Your task to perform on an android device: How much does a 2 bedroom apartment rent for in Portland? Image 0: 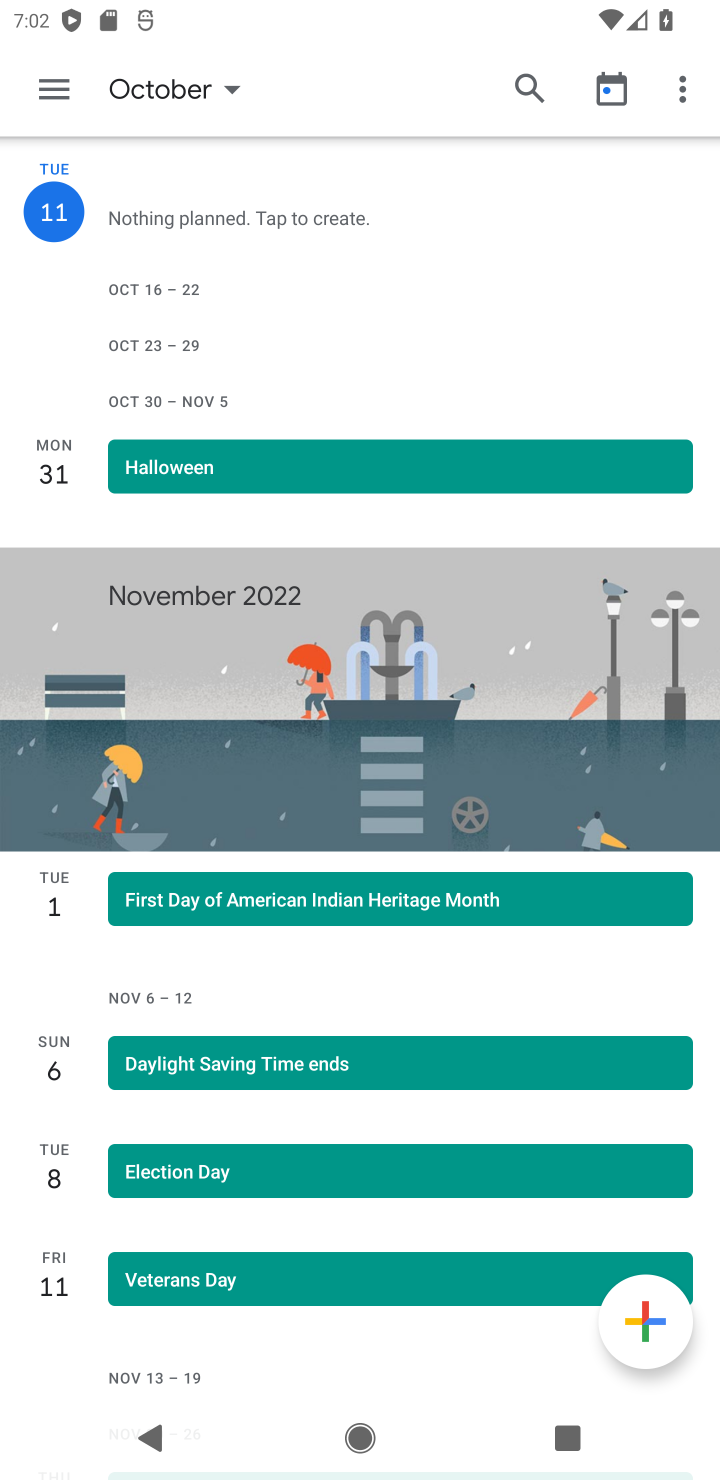
Step 0: press home button
Your task to perform on an android device: How much does a 2 bedroom apartment rent for in Portland? Image 1: 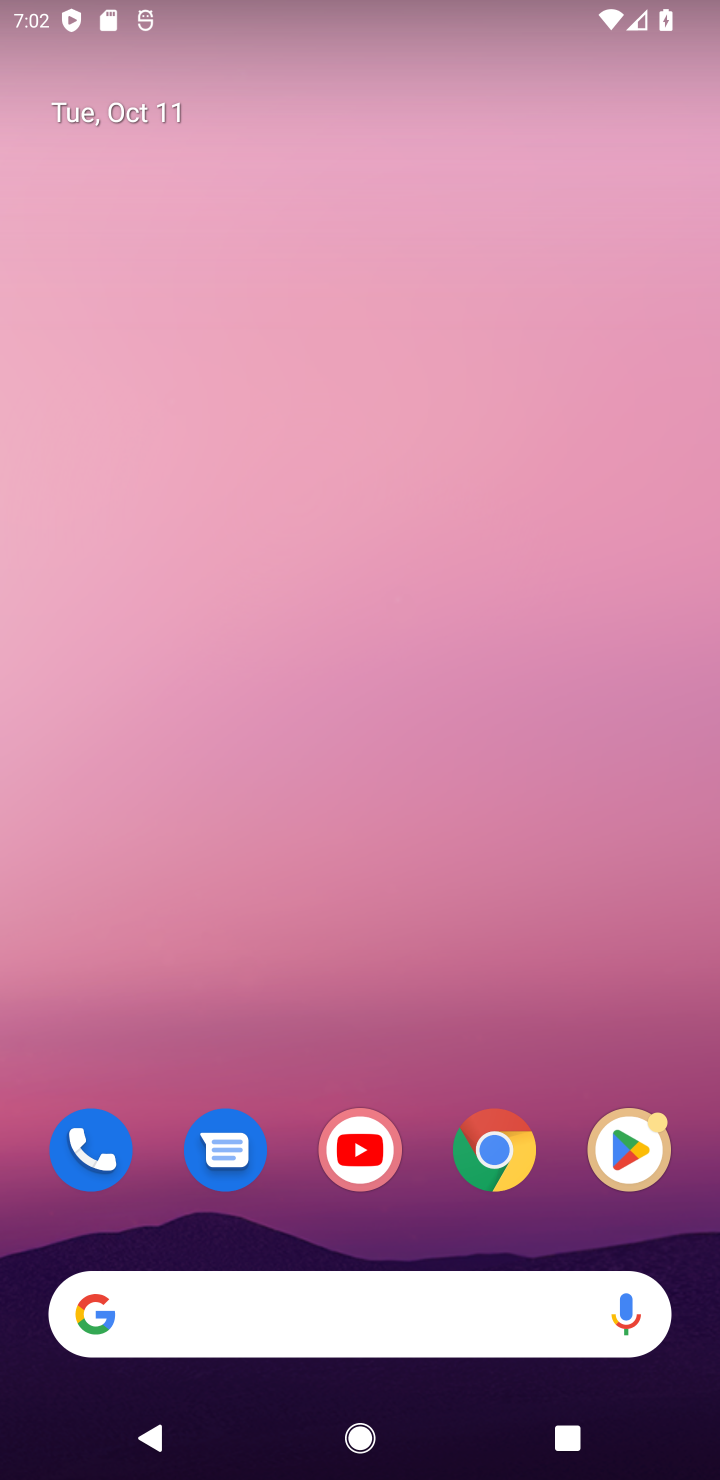
Step 1: click (499, 1160)
Your task to perform on an android device: How much does a 2 bedroom apartment rent for in Portland? Image 2: 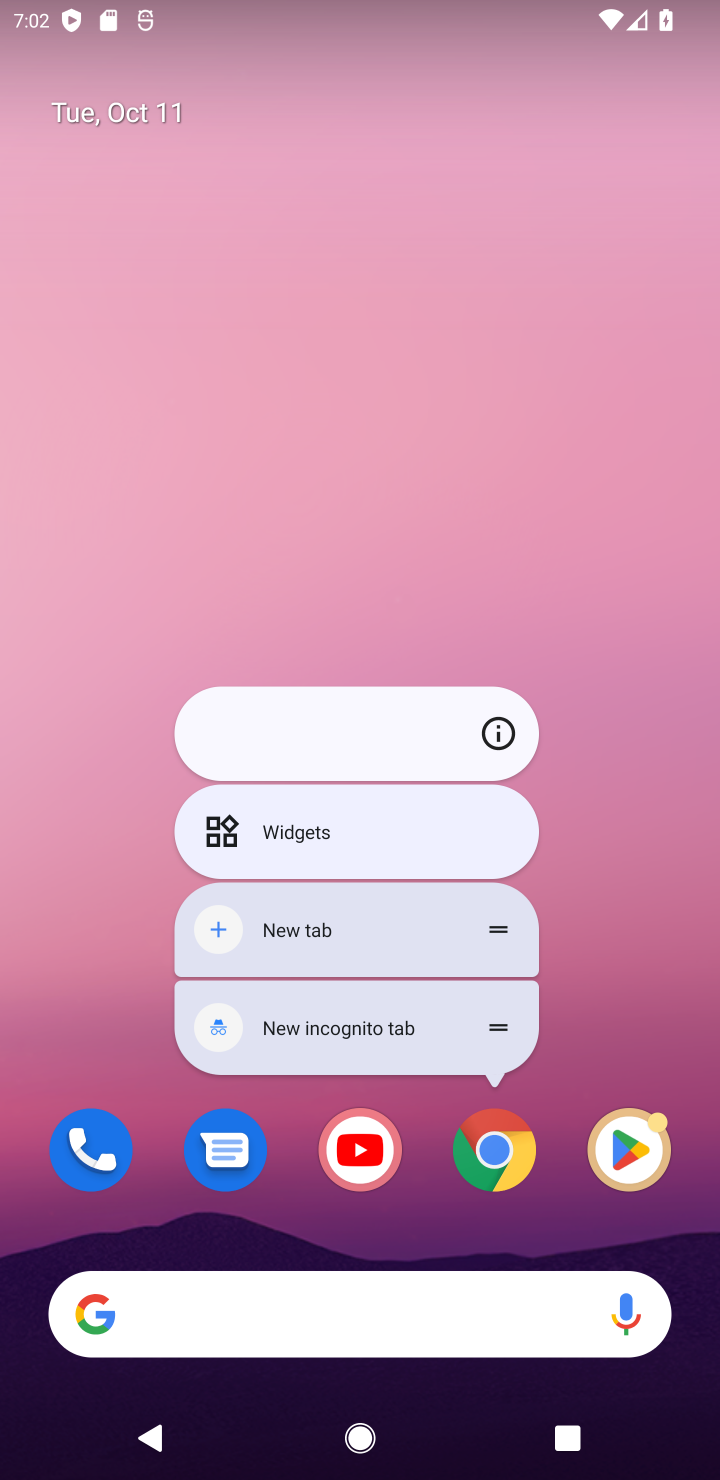
Step 2: click (491, 1155)
Your task to perform on an android device: How much does a 2 bedroom apartment rent for in Portland? Image 3: 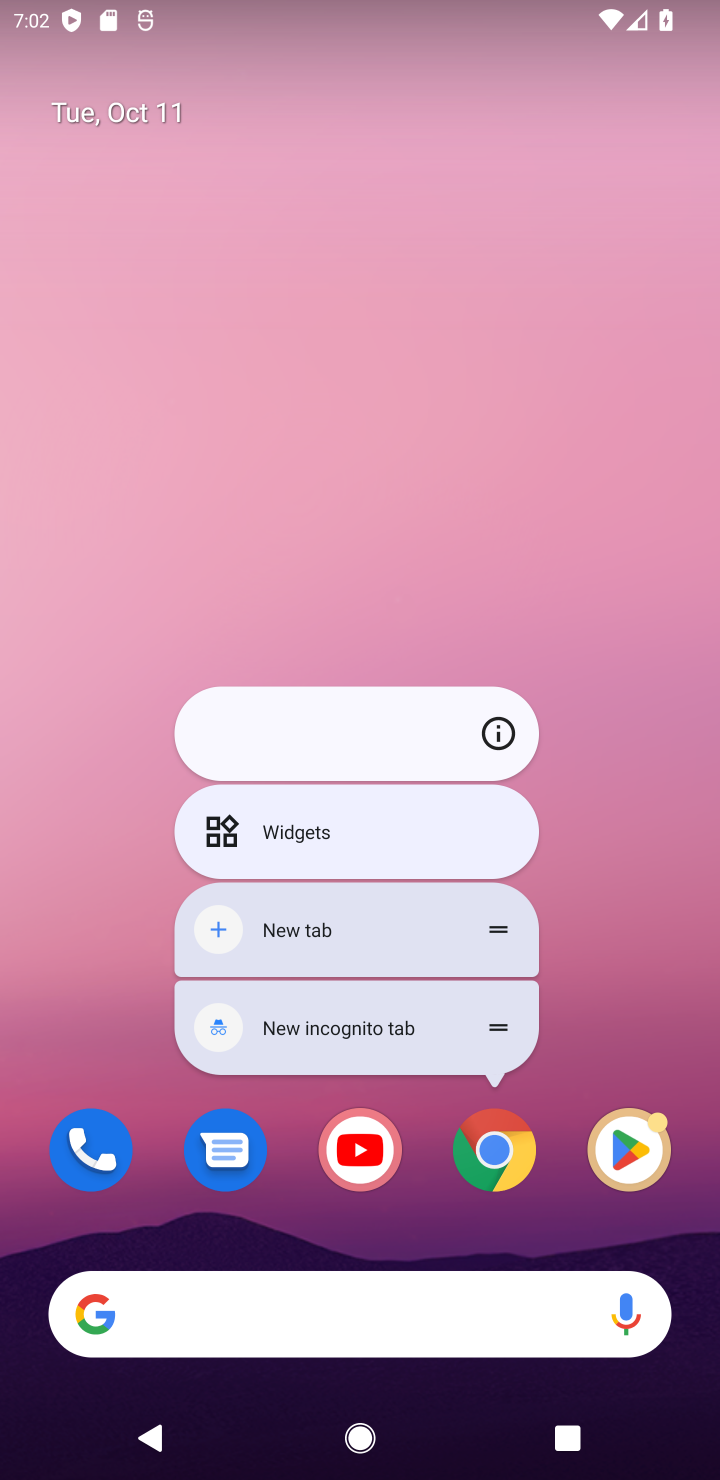
Step 3: click (495, 1151)
Your task to perform on an android device: How much does a 2 bedroom apartment rent for in Portland? Image 4: 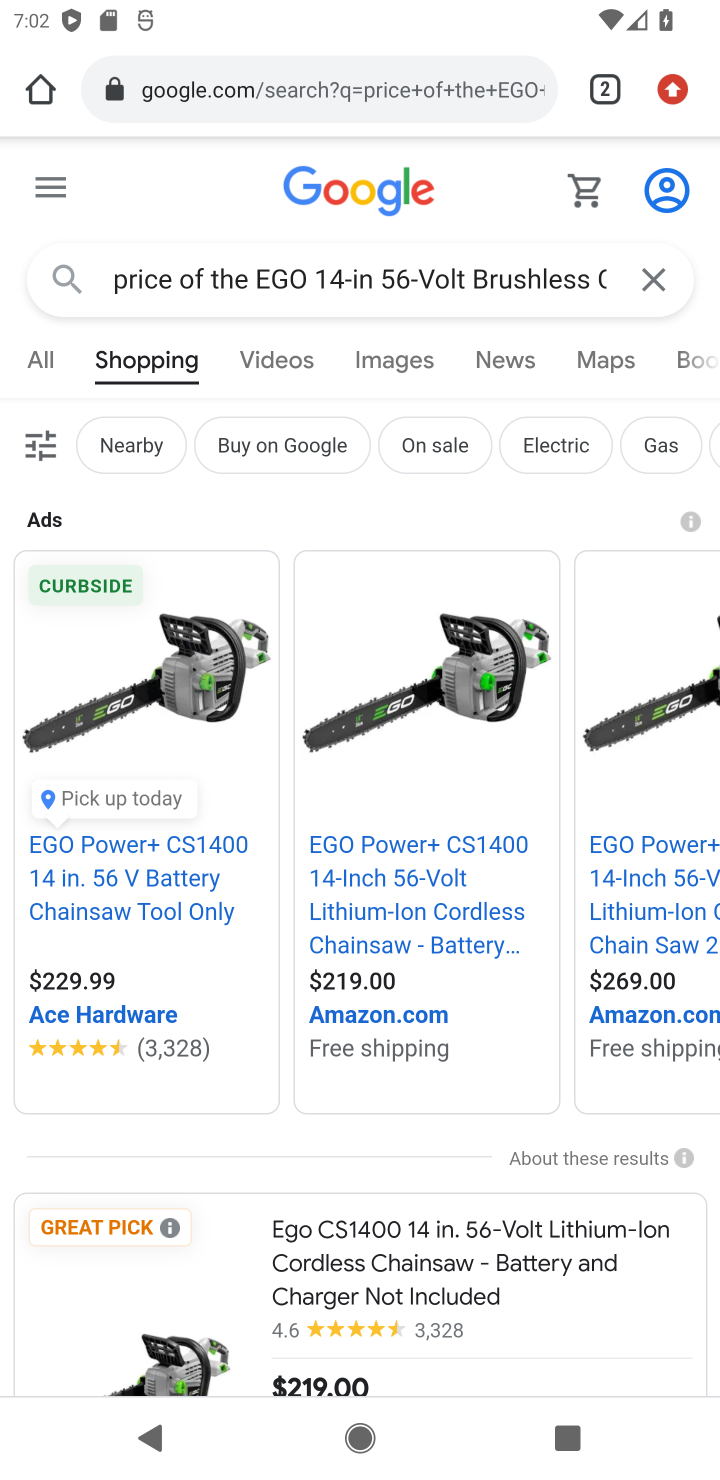
Step 4: click (345, 91)
Your task to perform on an android device: How much does a 2 bedroom apartment rent for in Portland? Image 5: 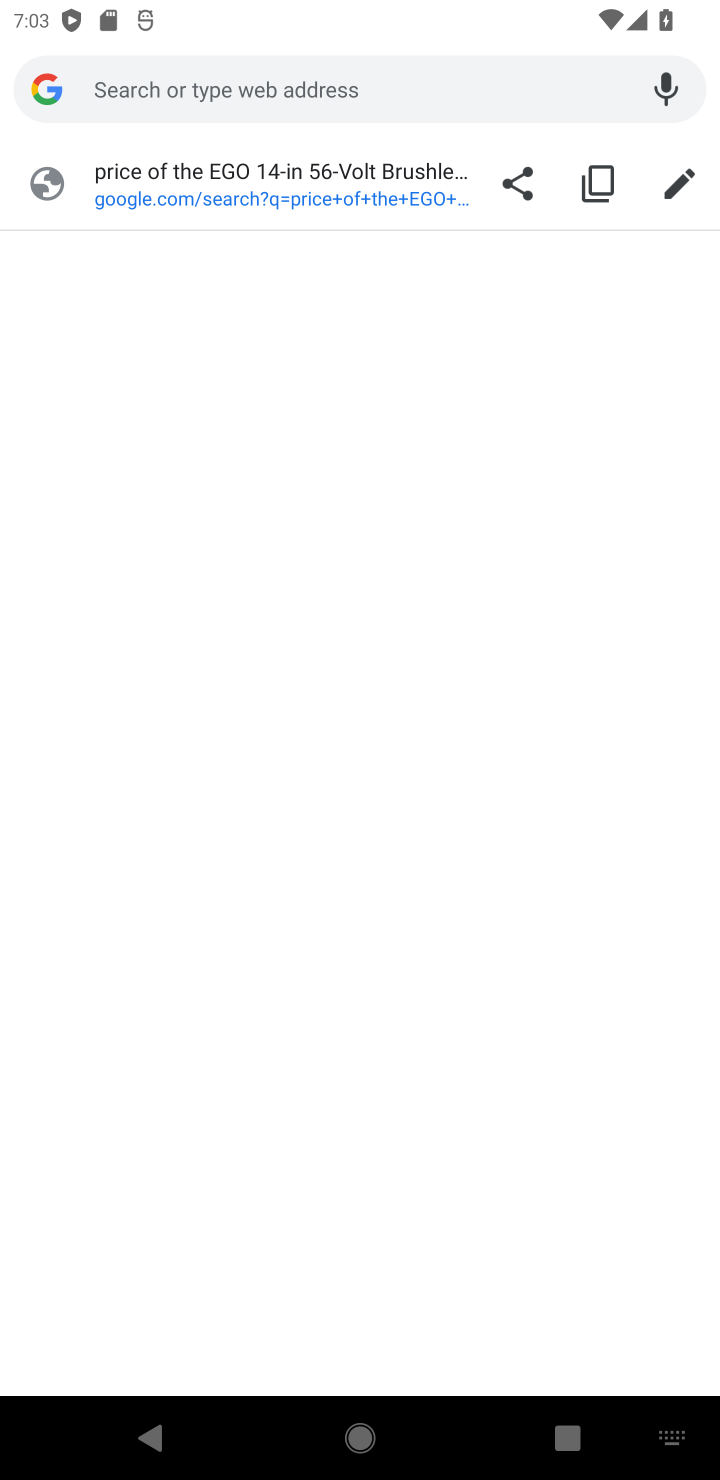
Step 5: type "rent for 2 bedroom apartment in portland"
Your task to perform on an android device: How much does a 2 bedroom apartment rent for in Portland? Image 6: 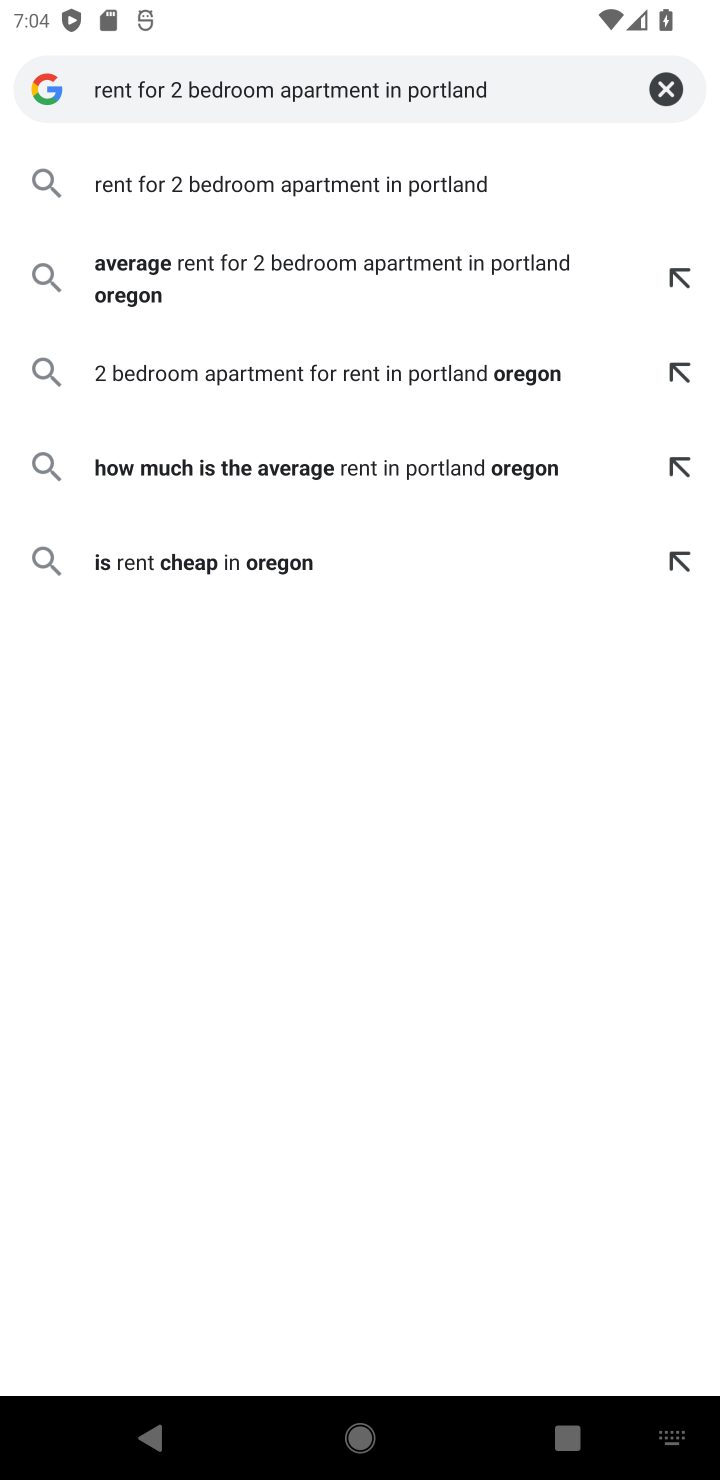
Step 6: click (317, 186)
Your task to perform on an android device: How much does a 2 bedroom apartment rent for in Portland? Image 7: 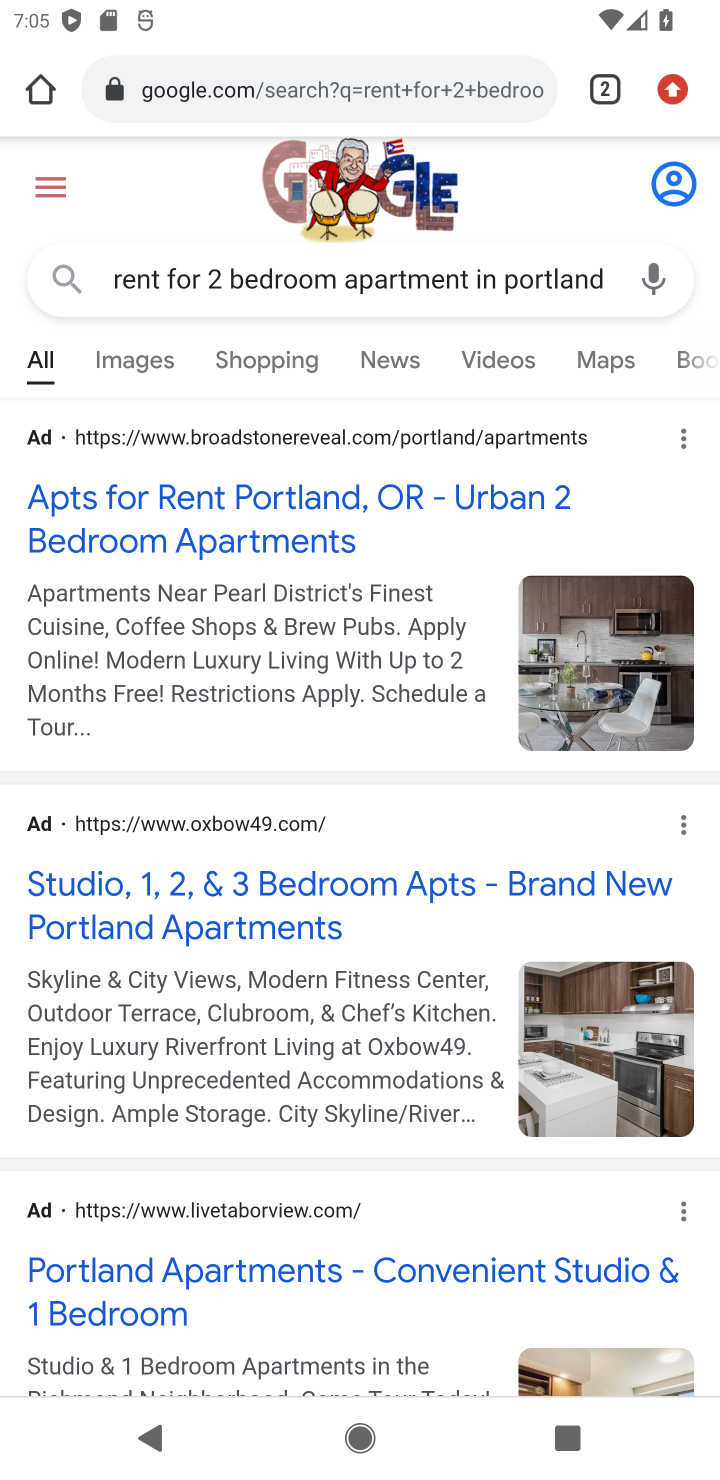
Step 7: drag from (238, 871) to (244, 476)
Your task to perform on an android device: How much does a 2 bedroom apartment rent for in Portland? Image 8: 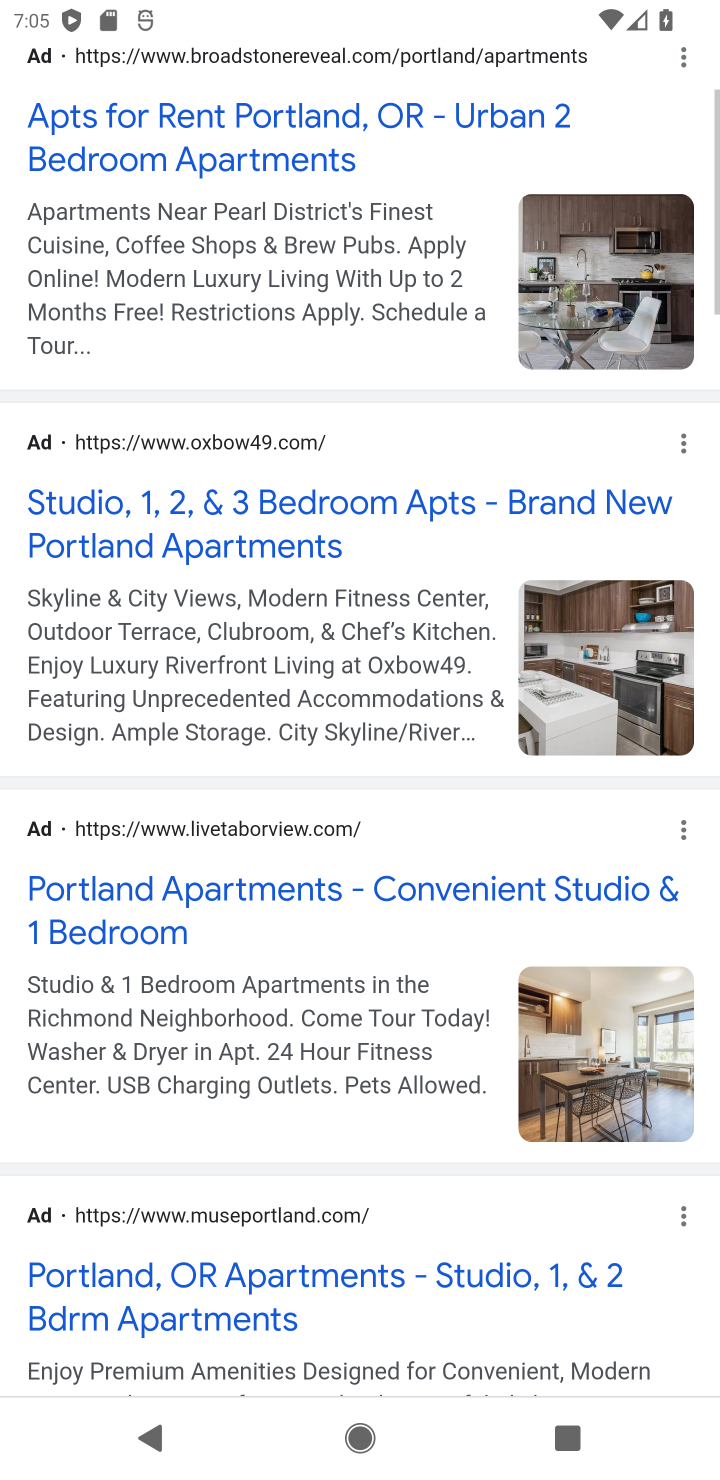
Step 8: drag from (277, 1168) to (295, 556)
Your task to perform on an android device: How much does a 2 bedroom apartment rent for in Portland? Image 9: 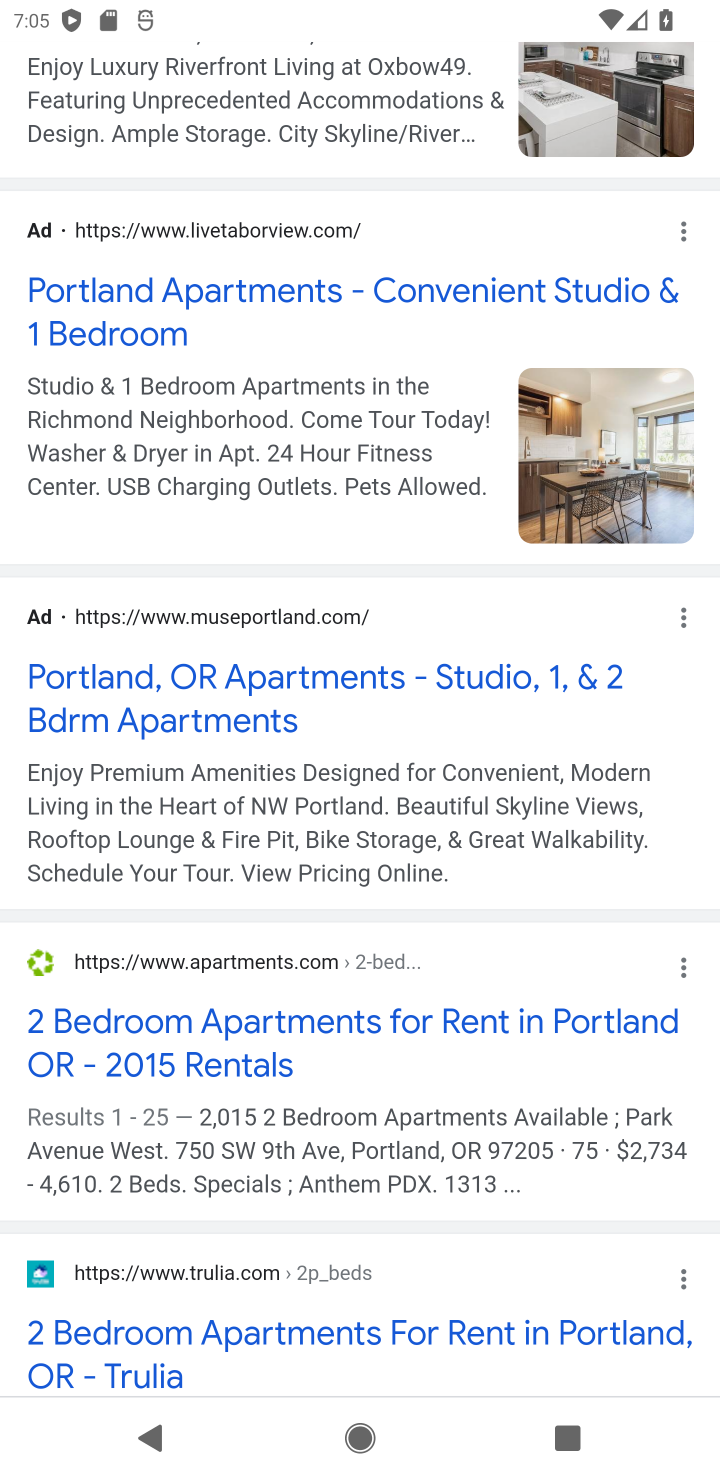
Step 9: click (195, 1127)
Your task to perform on an android device: How much does a 2 bedroom apartment rent for in Portland? Image 10: 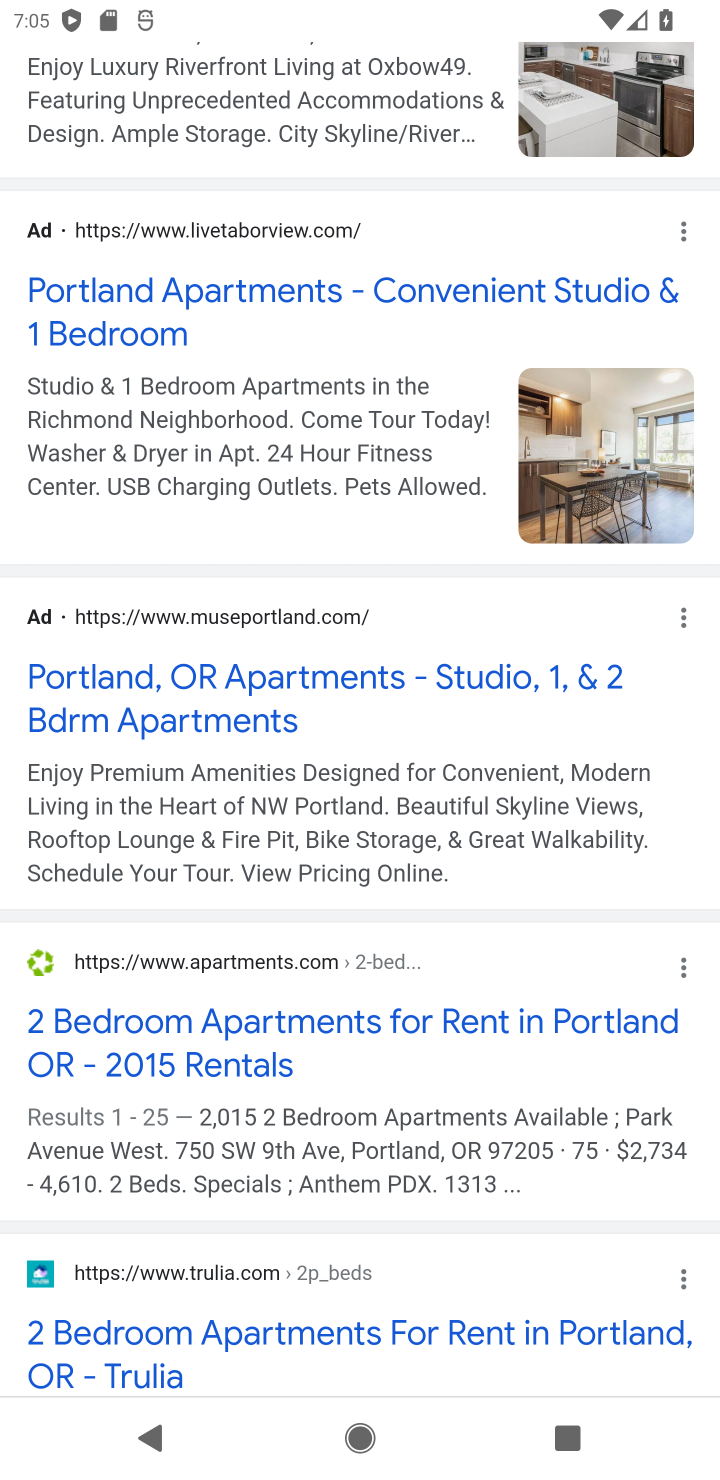
Step 10: click (186, 1054)
Your task to perform on an android device: How much does a 2 bedroom apartment rent for in Portland? Image 11: 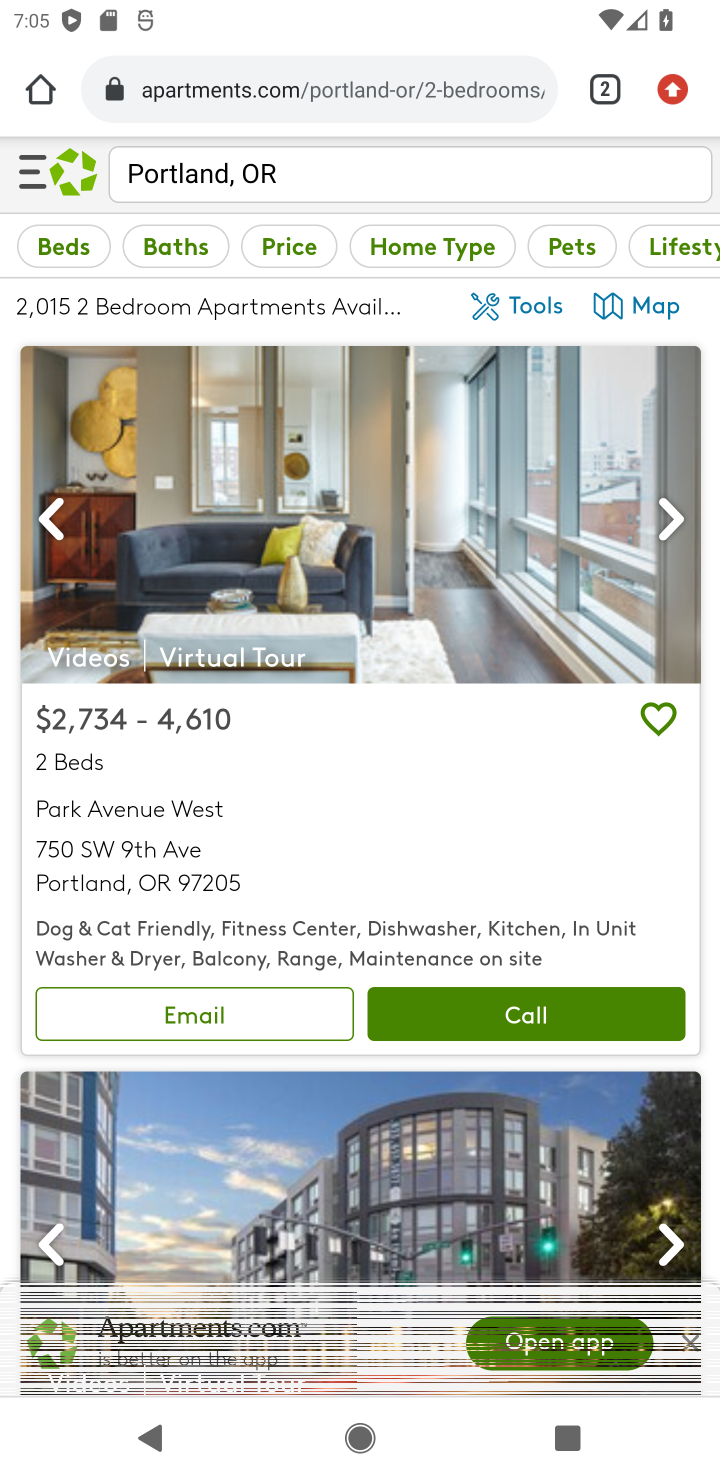
Step 11: task complete